Your task to perform on an android device: open app "WhatsApp Messenger" (install if not already installed) Image 0: 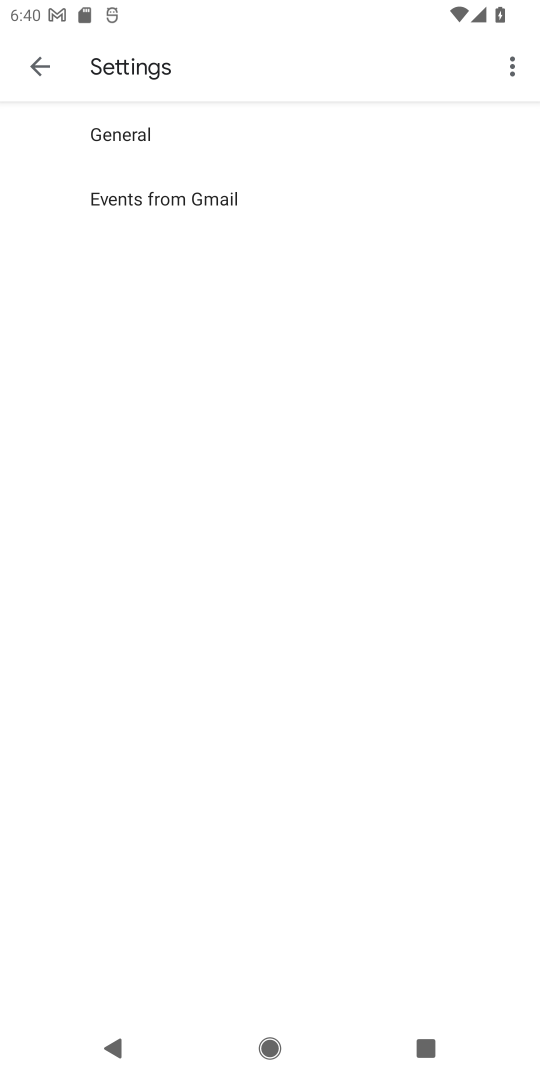
Step 0: press home button
Your task to perform on an android device: open app "WhatsApp Messenger" (install if not already installed) Image 1: 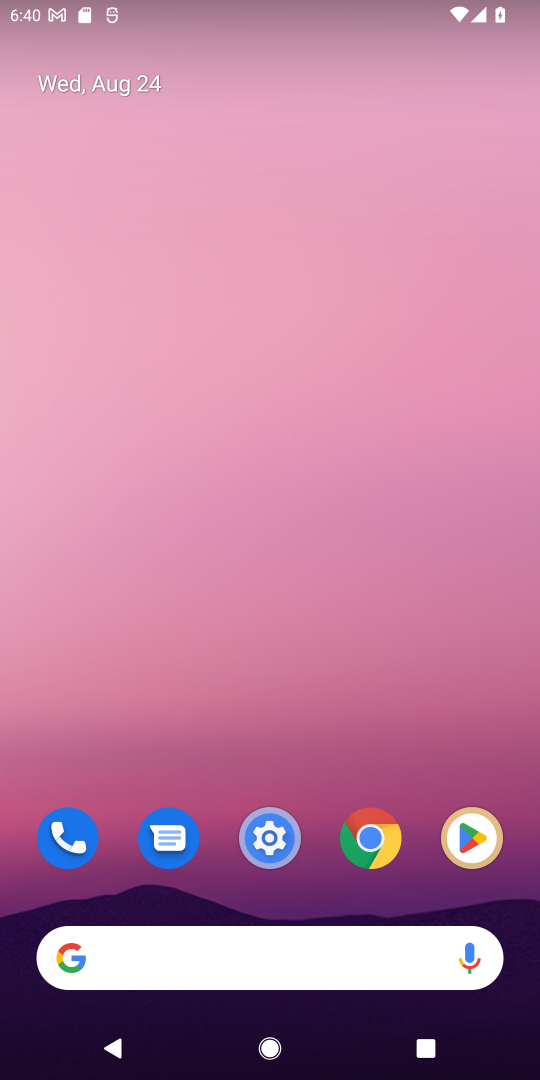
Step 1: click (469, 837)
Your task to perform on an android device: open app "WhatsApp Messenger" (install if not already installed) Image 2: 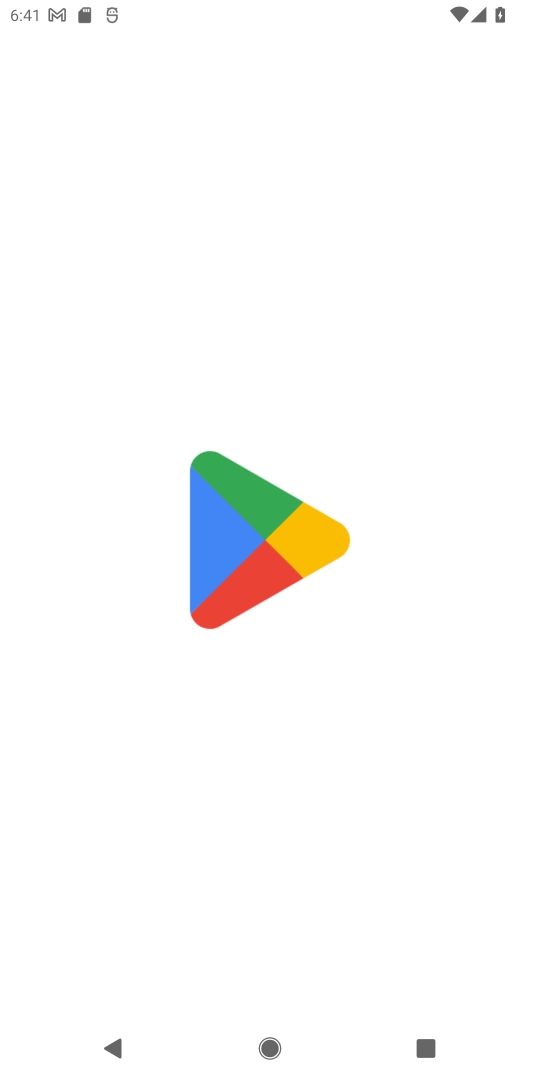
Step 2: press back button
Your task to perform on an android device: open app "WhatsApp Messenger" (install if not already installed) Image 3: 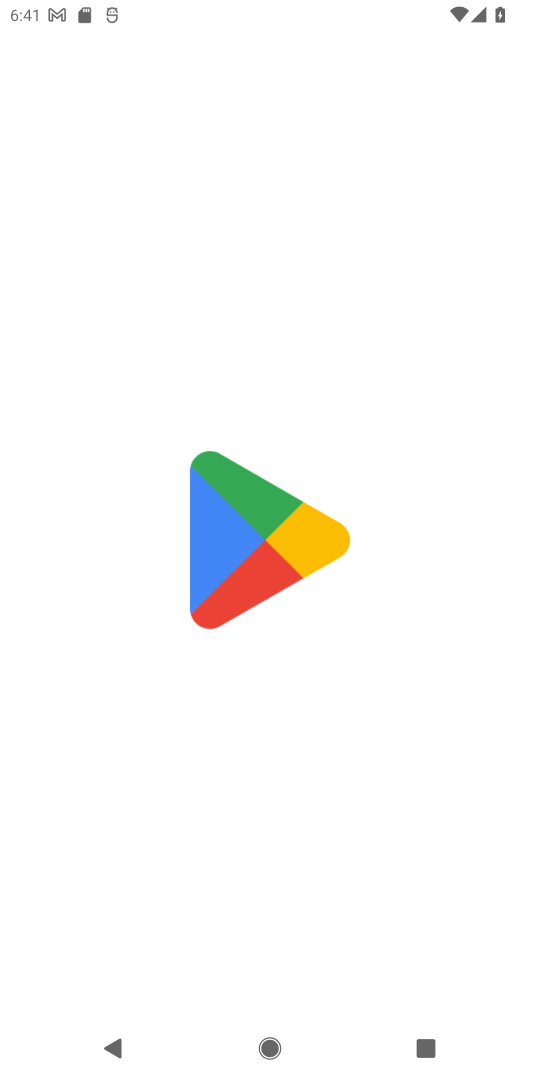
Step 3: press home button
Your task to perform on an android device: open app "WhatsApp Messenger" (install if not already installed) Image 4: 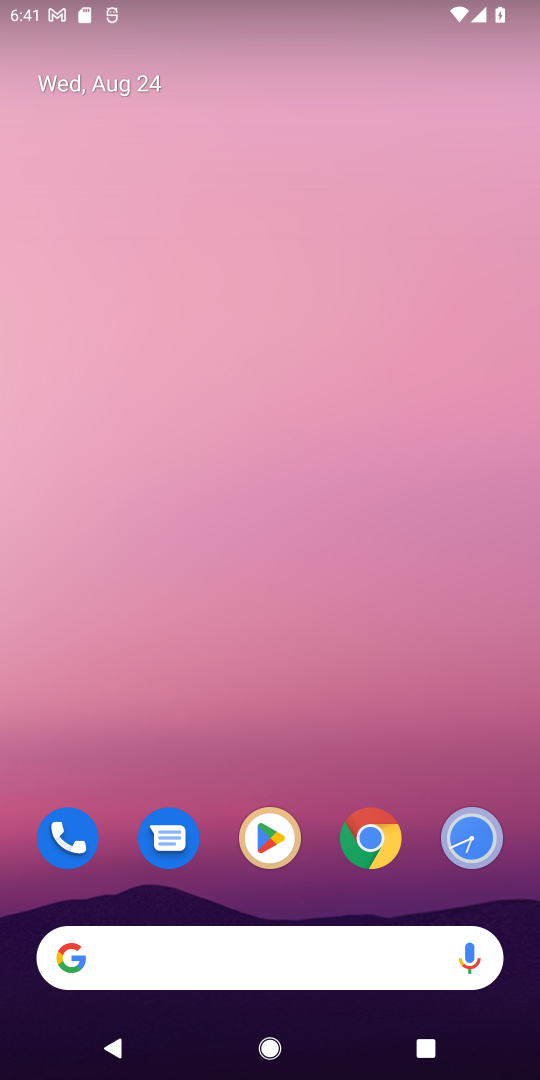
Step 4: click (277, 834)
Your task to perform on an android device: open app "WhatsApp Messenger" (install if not already installed) Image 5: 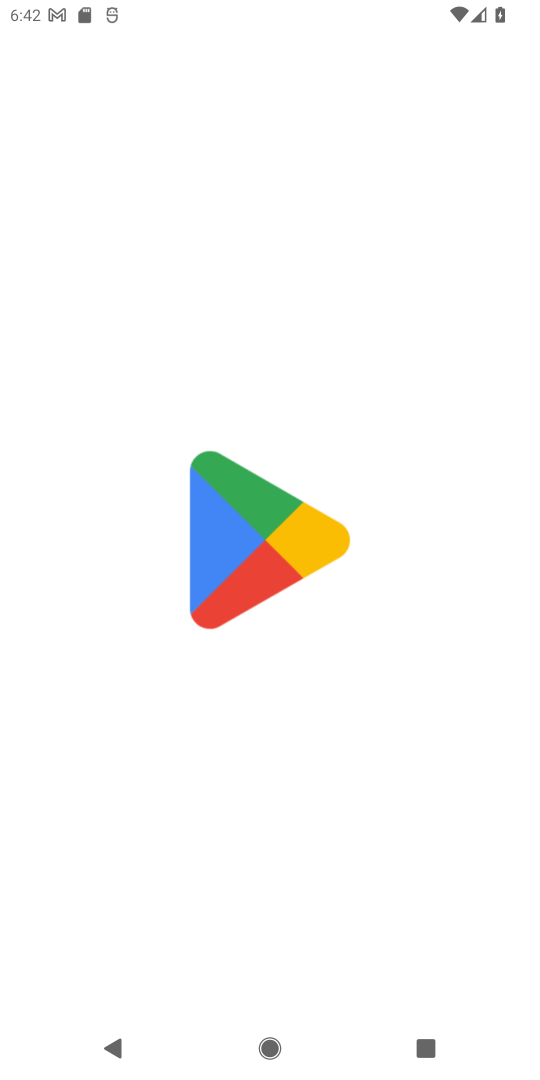
Step 5: press home button
Your task to perform on an android device: open app "WhatsApp Messenger" (install if not already installed) Image 6: 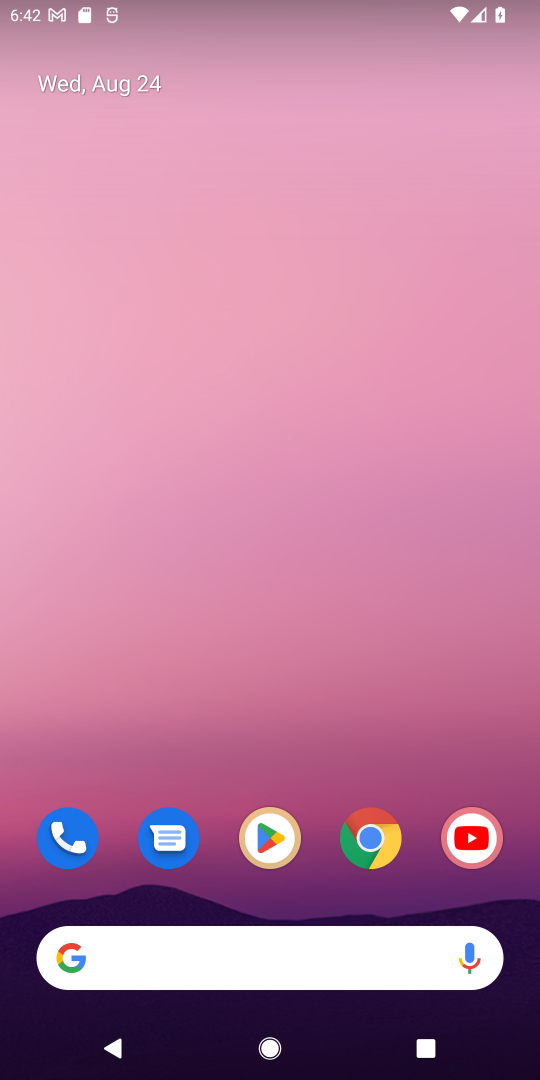
Step 6: click (270, 841)
Your task to perform on an android device: open app "WhatsApp Messenger" (install if not already installed) Image 7: 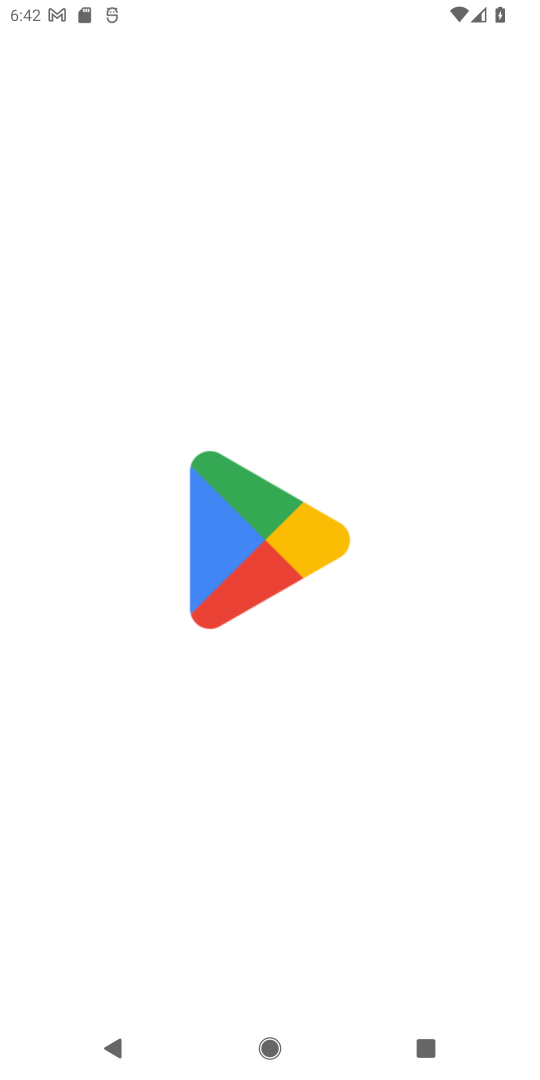
Step 7: task complete